Your task to perform on an android device: Set the phone to "Do not disturb". Image 0: 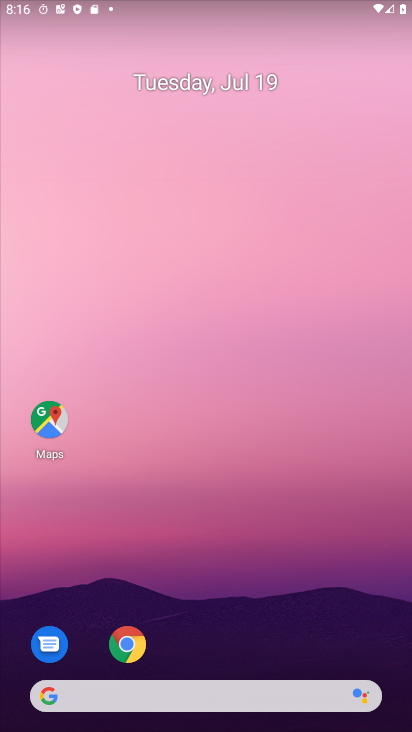
Step 0: drag from (12, 697) to (238, 181)
Your task to perform on an android device: Set the phone to "Do not disturb". Image 1: 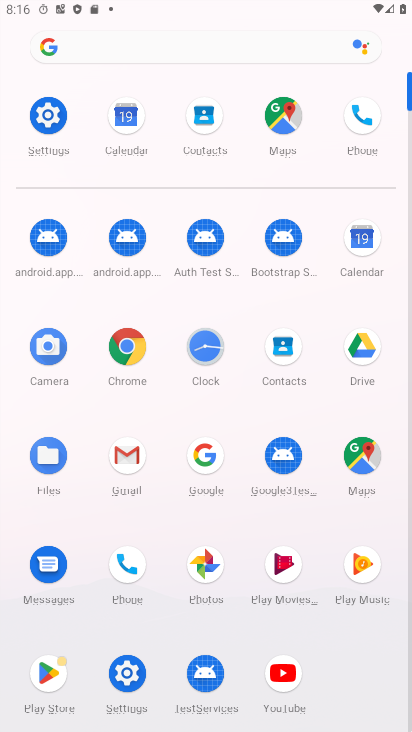
Step 1: click (118, 673)
Your task to perform on an android device: Set the phone to "Do not disturb". Image 2: 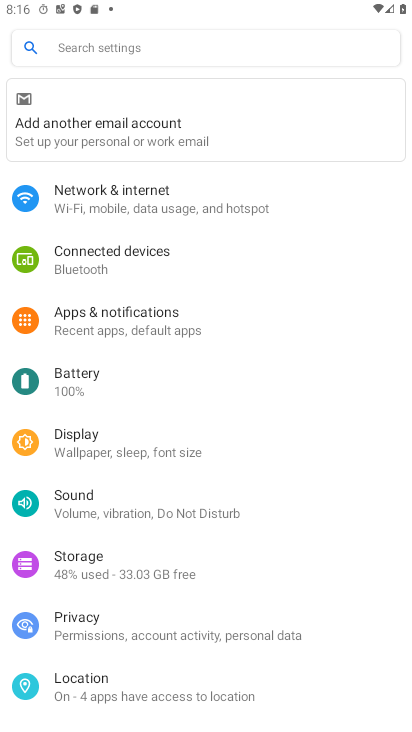
Step 2: click (110, 507)
Your task to perform on an android device: Set the phone to "Do not disturb". Image 3: 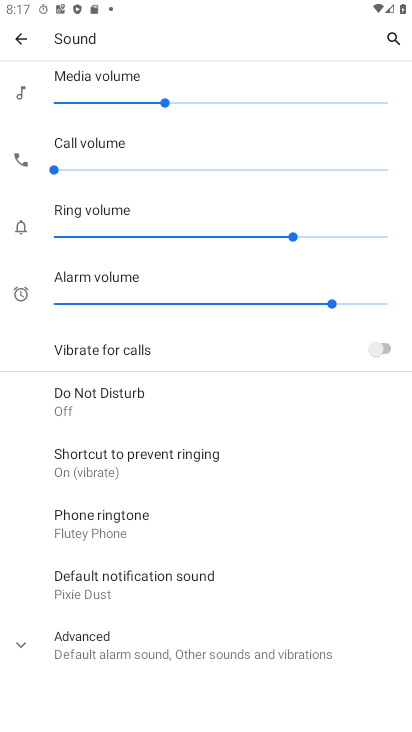
Step 3: click (105, 415)
Your task to perform on an android device: Set the phone to "Do not disturb". Image 4: 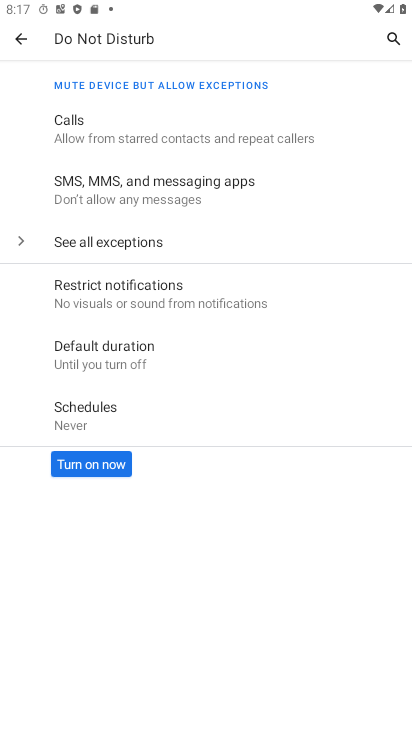
Step 4: click (84, 462)
Your task to perform on an android device: Set the phone to "Do not disturb". Image 5: 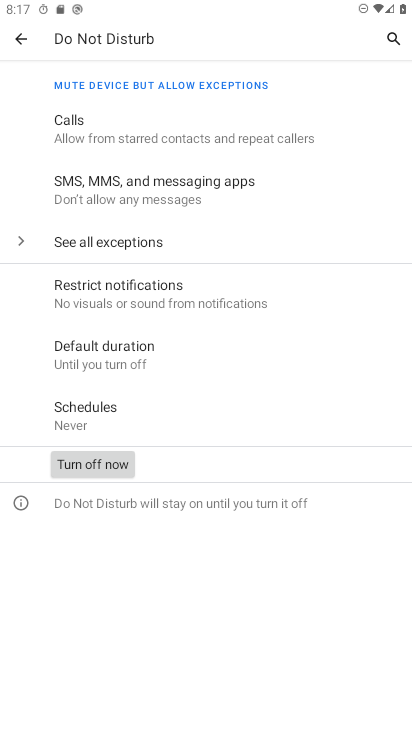
Step 5: task complete